Your task to perform on an android device: Open ESPN.com Image 0: 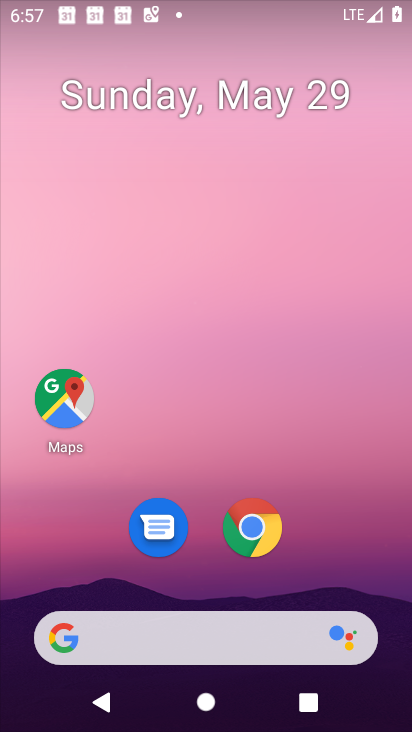
Step 0: drag from (364, 591) to (322, 75)
Your task to perform on an android device: Open ESPN.com Image 1: 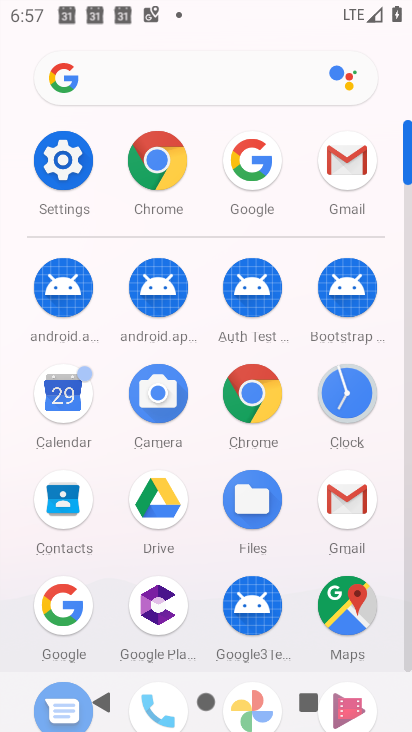
Step 1: click (74, 615)
Your task to perform on an android device: Open ESPN.com Image 2: 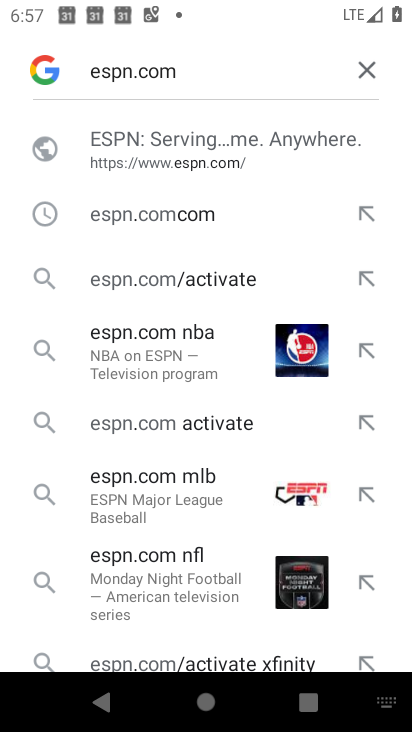
Step 2: click (270, 131)
Your task to perform on an android device: Open ESPN.com Image 3: 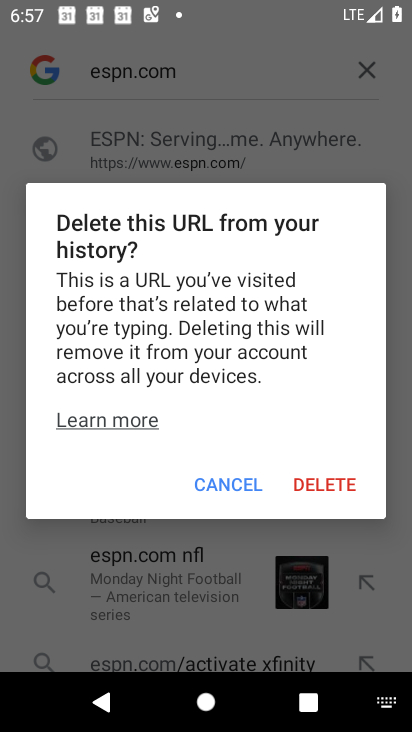
Step 3: click (244, 491)
Your task to perform on an android device: Open ESPN.com Image 4: 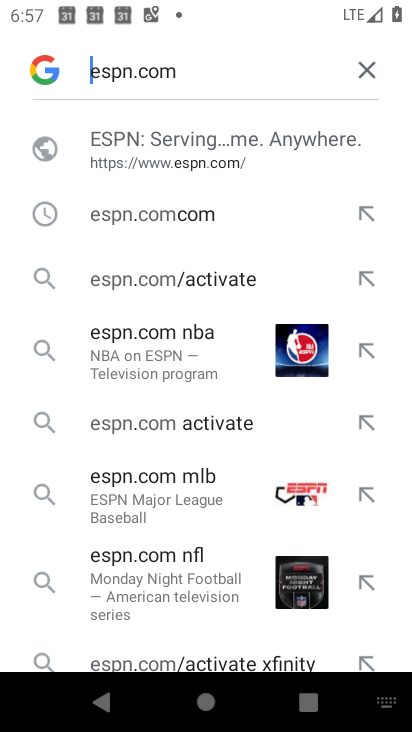
Step 4: click (209, 125)
Your task to perform on an android device: Open ESPN.com Image 5: 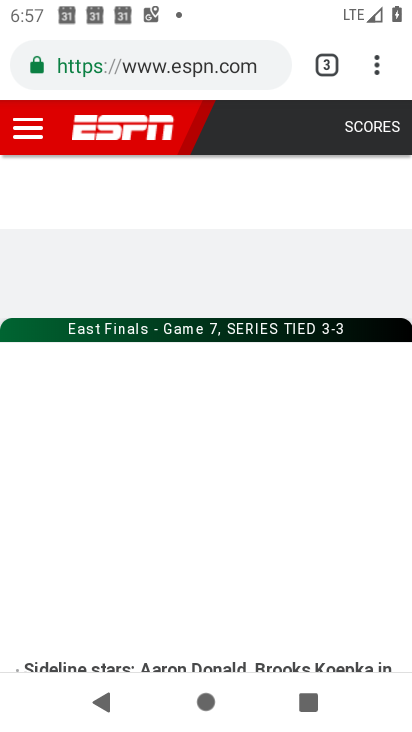
Step 5: task complete